Your task to perform on an android device: create a new album in the google photos Image 0: 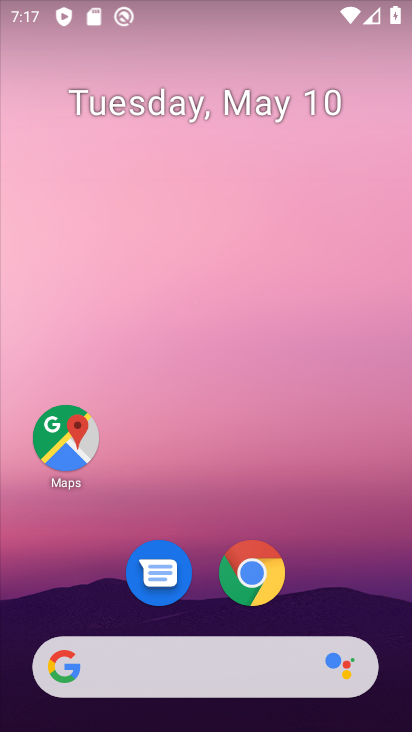
Step 0: drag from (375, 591) to (331, 166)
Your task to perform on an android device: create a new album in the google photos Image 1: 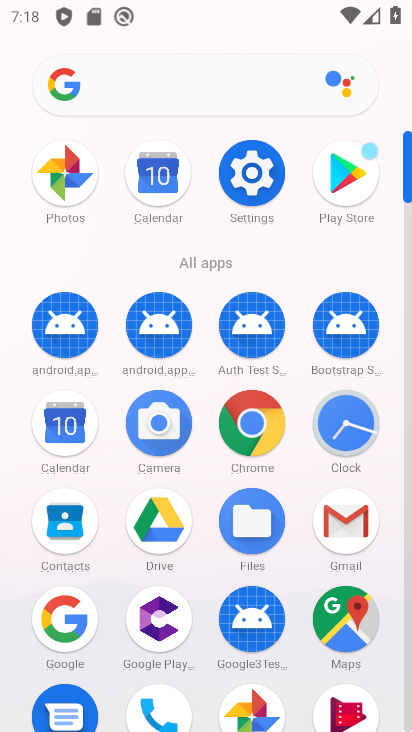
Step 1: drag from (204, 617) to (212, 311)
Your task to perform on an android device: create a new album in the google photos Image 2: 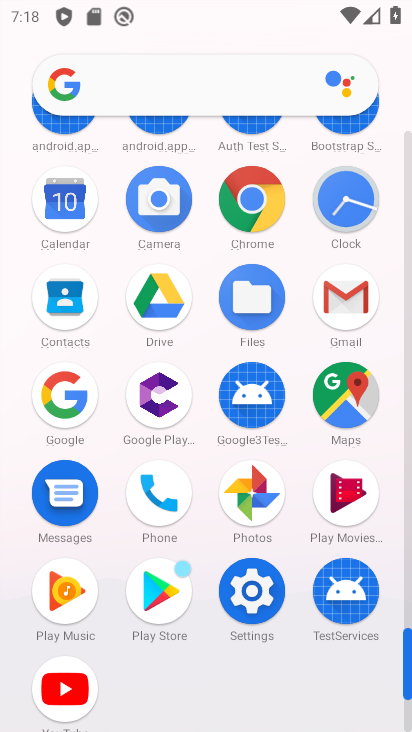
Step 2: click (271, 495)
Your task to perform on an android device: create a new album in the google photos Image 3: 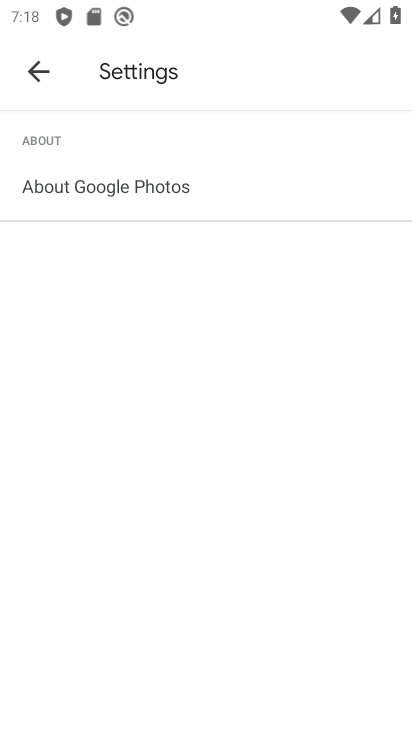
Step 3: drag from (337, 637) to (339, 325)
Your task to perform on an android device: create a new album in the google photos Image 4: 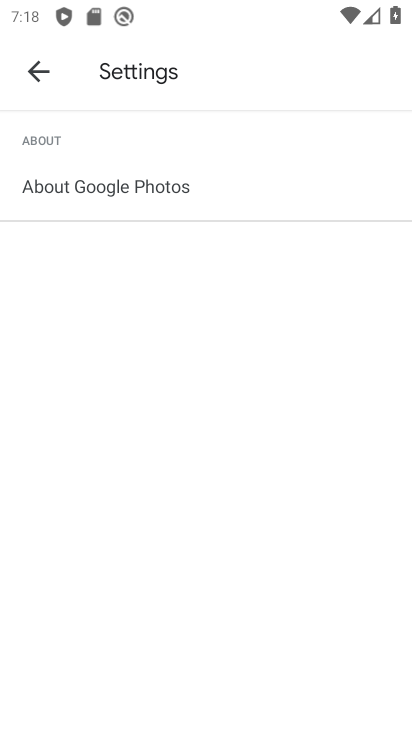
Step 4: click (35, 61)
Your task to perform on an android device: create a new album in the google photos Image 5: 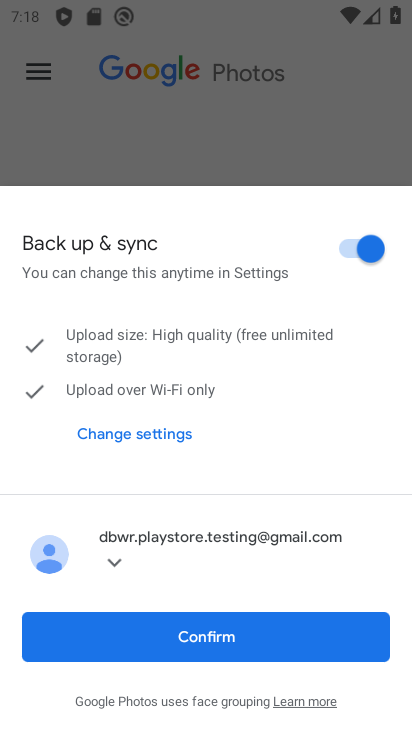
Step 5: click (201, 647)
Your task to perform on an android device: create a new album in the google photos Image 6: 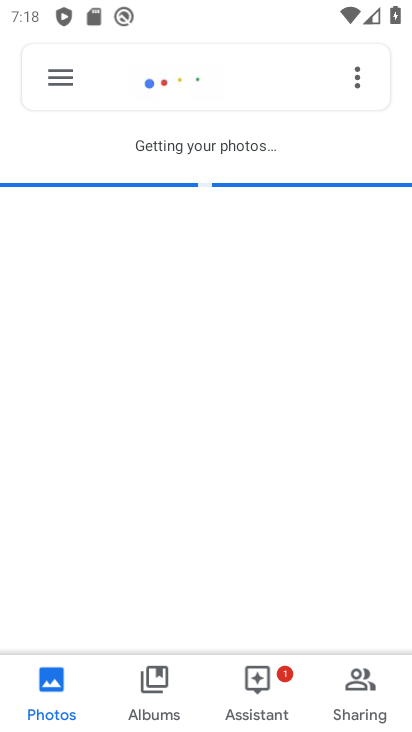
Step 6: click (140, 684)
Your task to perform on an android device: create a new album in the google photos Image 7: 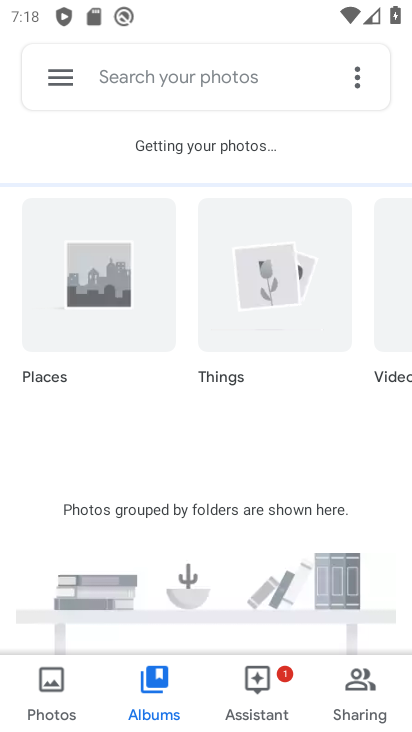
Step 7: drag from (306, 486) to (313, 210)
Your task to perform on an android device: create a new album in the google photos Image 8: 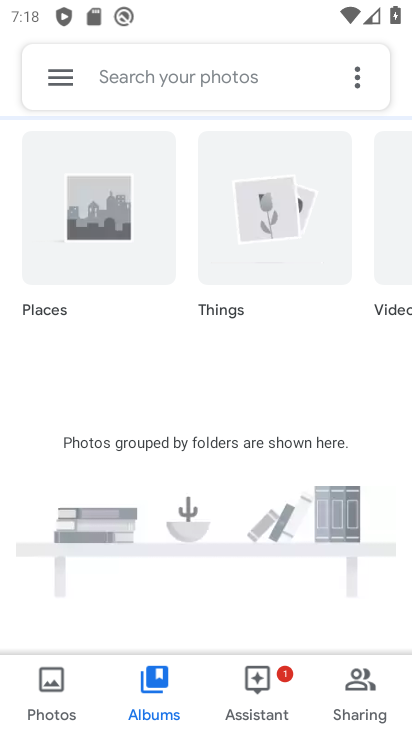
Step 8: drag from (316, 537) to (301, 239)
Your task to perform on an android device: create a new album in the google photos Image 9: 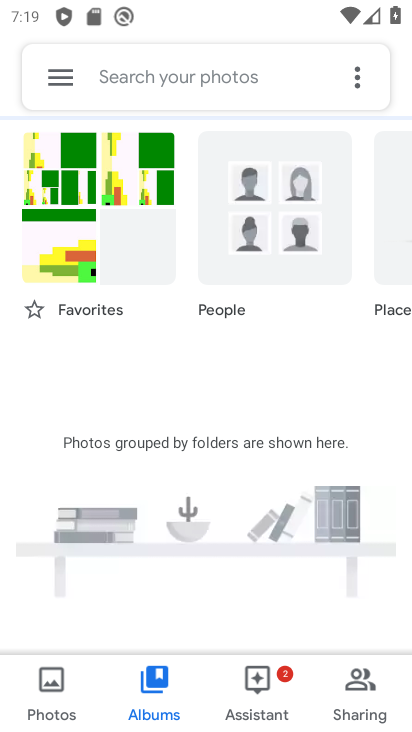
Step 9: drag from (262, 575) to (240, 231)
Your task to perform on an android device: create a new album in the google photos Image 10: 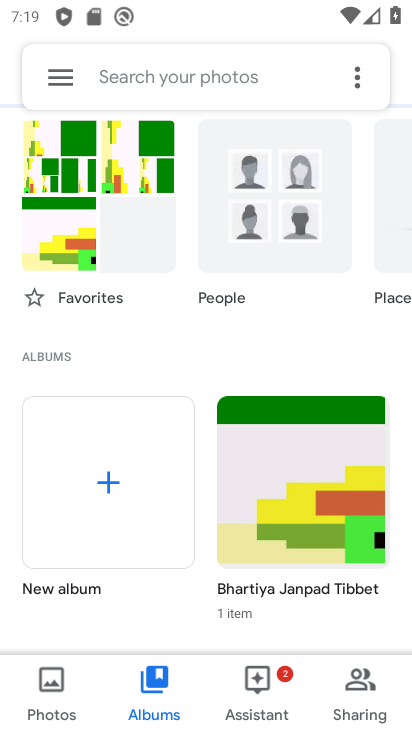
Step 10: click (111, 492)
Your task to perform on an android device: create a new album in the google photos Image 11: 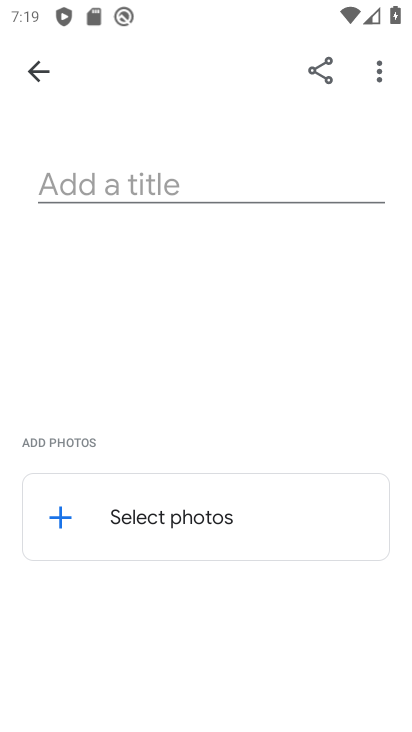
Step 11: click (137, 179)
Your task to perform on an android device: create a new album in the google photos Image 12: 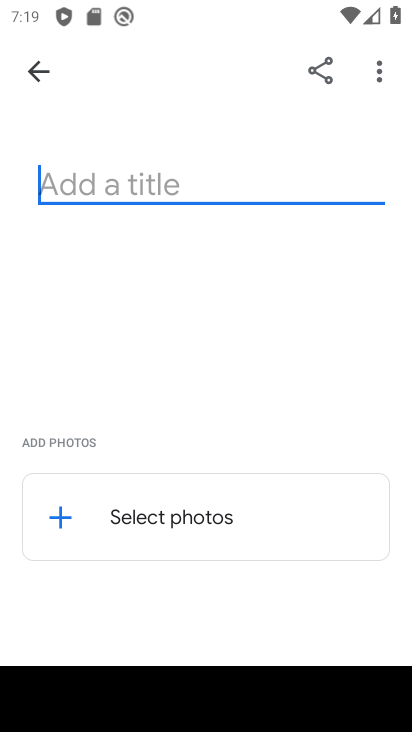
Step 12: type "geo"
Your task to perform on an android device: create a new album in the google photos Image 13: 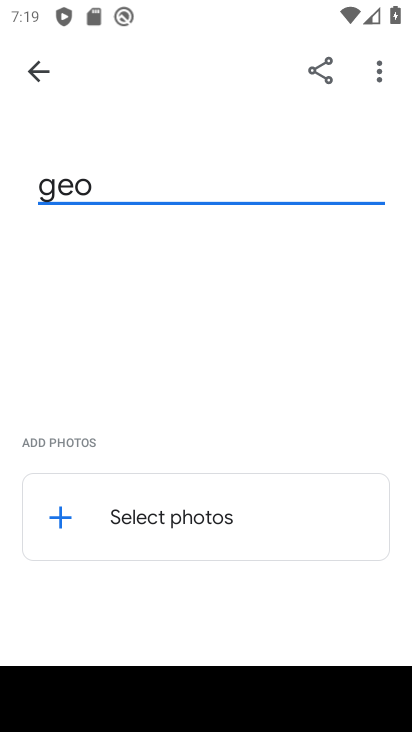
Step 13: click (63, 518)
Your task to perform on an android device: create a new album in the google photos Image 14: 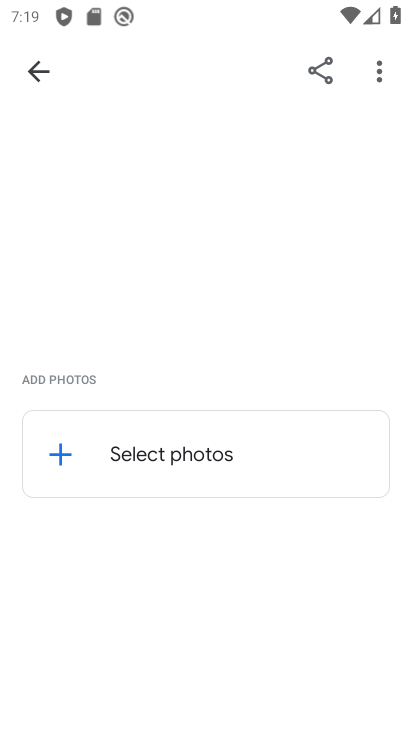
Step 14: click (52, 455)
Your task to perform on an android device: create a new album in the google photos Image 15: 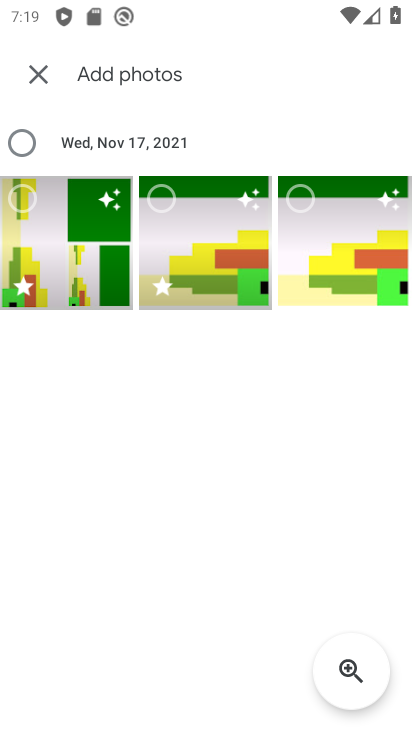
Step 15: click (33, 196)
Your task to perform on an android device: create a new album in the google photos Image 16: 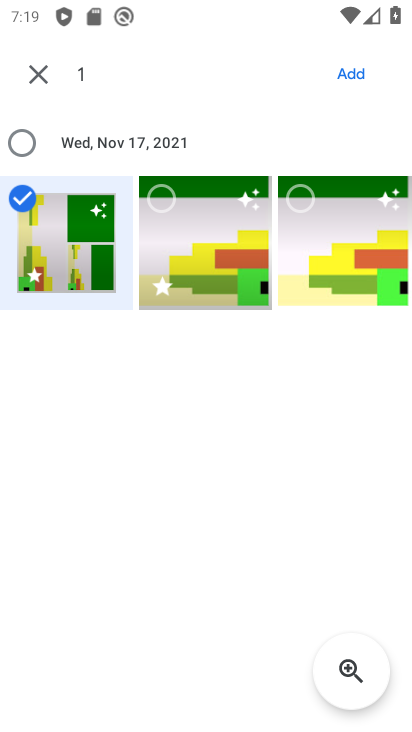
Step 16: click (342, 80)
Your task to perform on an android device: create a new album in the google photos Image 17: 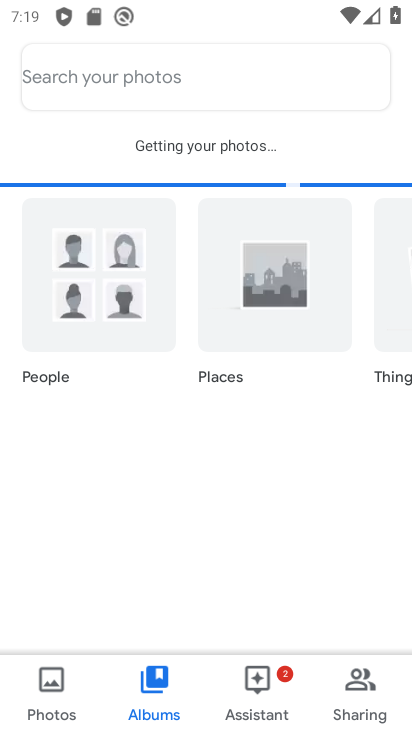
Step 17: task complete